Your task to perform on an android device: toggle improve location accuracy Image 0: 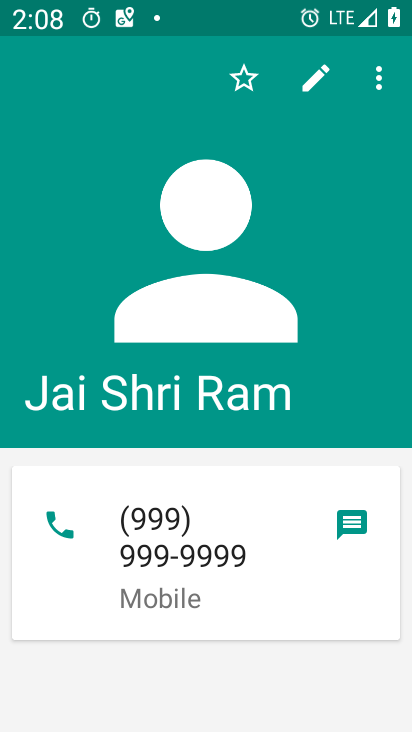
Step 0: press home button
Your task to perform on an android device: toggle improve location accuracy Image 1: 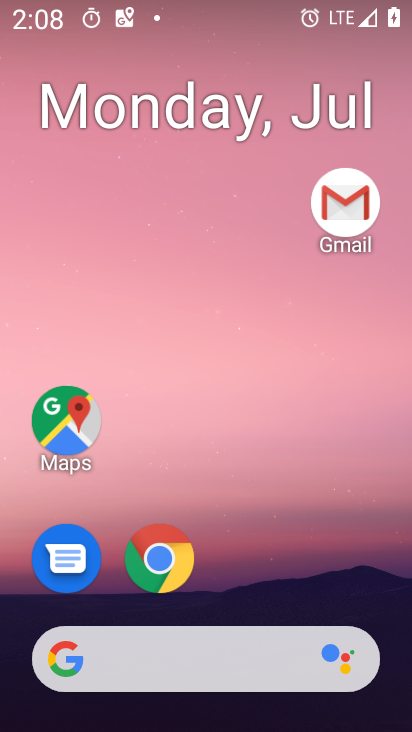
Step 1: drag from (358, 565) to (374, 164)
Your task to perform on an android device: toggle improve location accuracy Image 2: 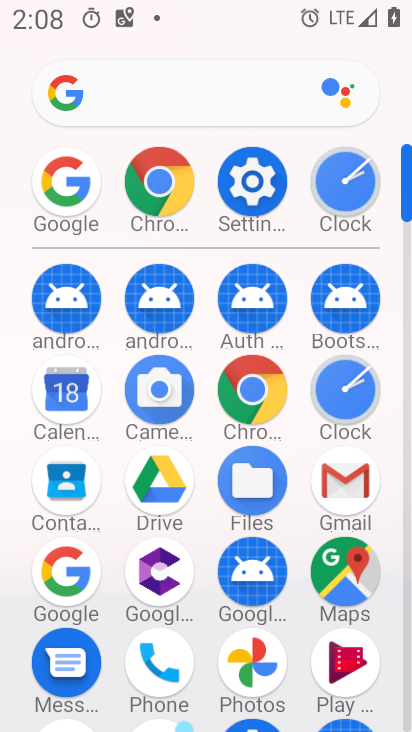
Step 2: click (268, 191)
Your task to perform on an android device: toggle improve location accuracy Image 3: 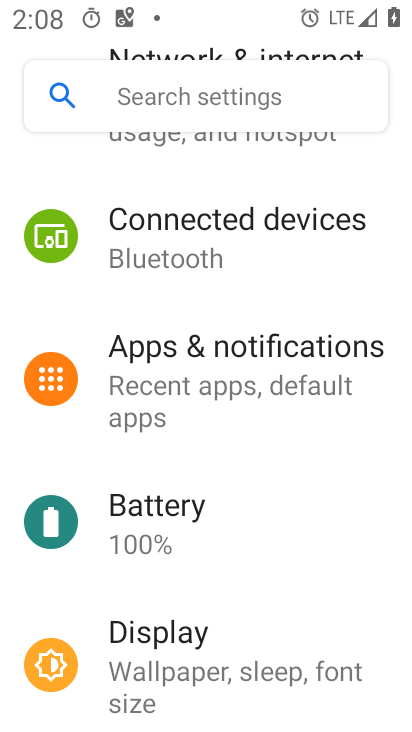
Step 3: drag from (339, 539) to (339, 445)
Your task to perform on an android device: toggle improve location accuracy Image 4: 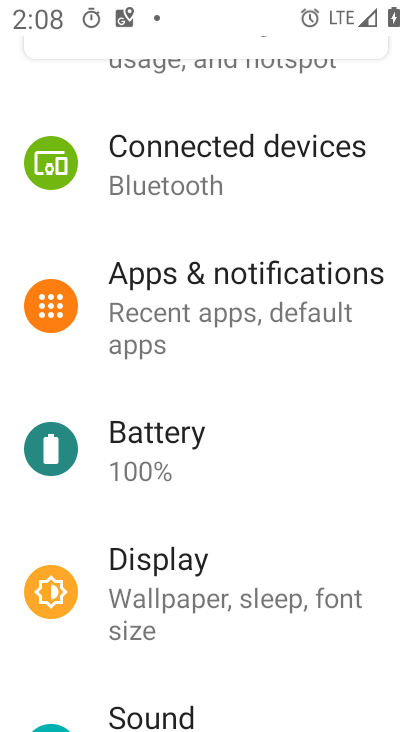
Step 4: drag from (346, 556) to (344, 449)
Your task to perform on an android device: toggle improve location accuracy Image 5: 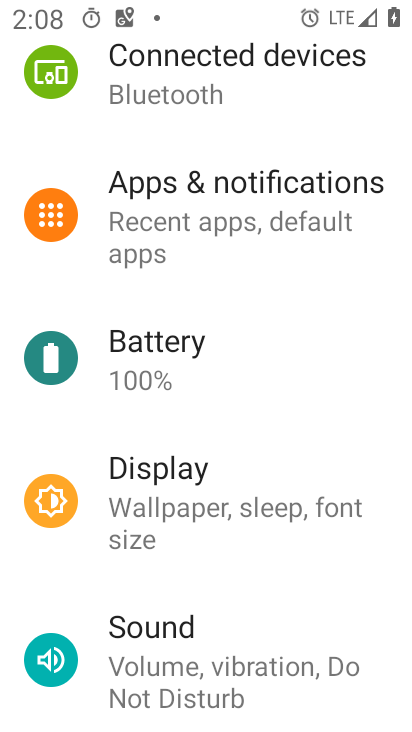
Step 5: drag from (354, 596) to (351, 471)
Your task to perform on an android device: toggle improve location accuracy Image 6: 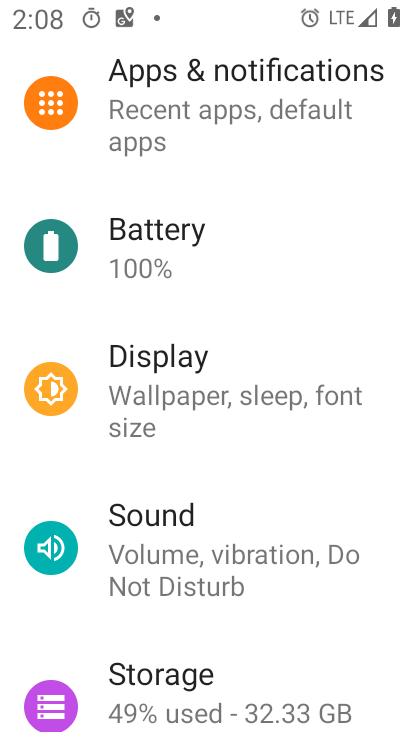
Step 6: drag from (349, 596) to (342, 492)
Your task to perform on an android device: toggle improve location accuracy Image 7: 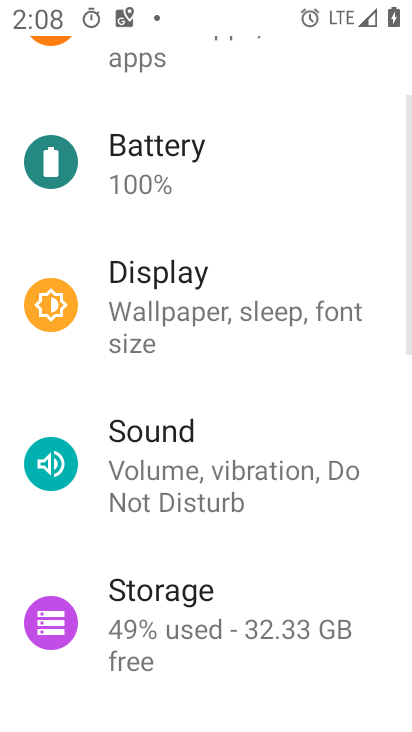
Step 7: drag from (337, 558) to (334, 453)
Your task to perform on an android device: toggle improve location accuracy Image 8: 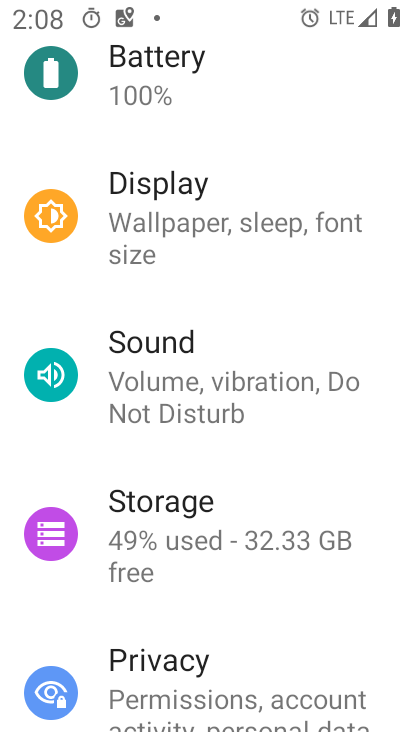
Step 8: drag from (323, 585) to (323, 476)
Your task to perform on an android device: toggle improve location accuracy Image 9: 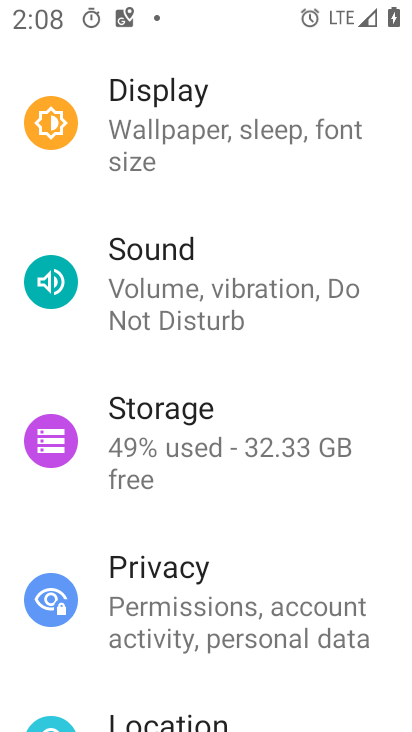
Step 9: drag from (332, 579) to (332, 463)
Your task to perform on an android device: toggle improve location accuracy Image 10: 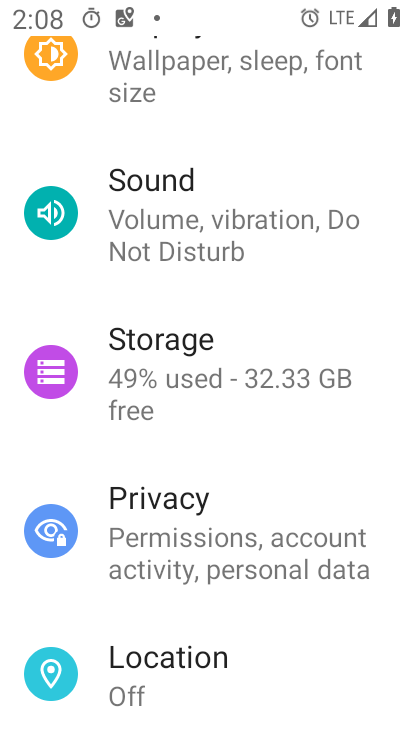
Step 10: drag from (333, 597) to (331, 484)
Your task to perform on an android device: toggle improve location accuracy Image 11: 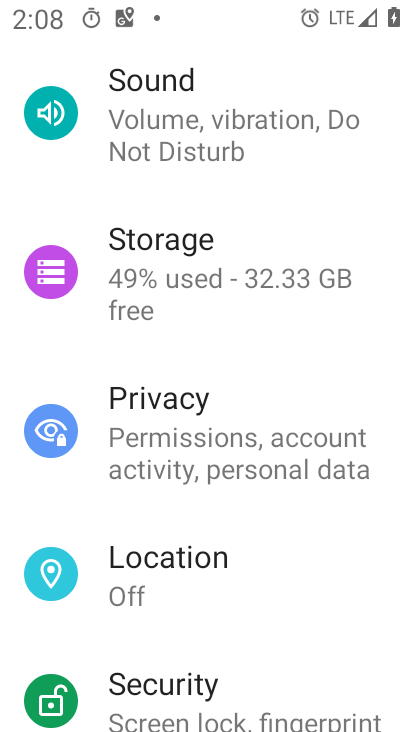
Step 11: click (318, 550)
Your task to perform on an android device: toggle improve location accuracy Image 12: 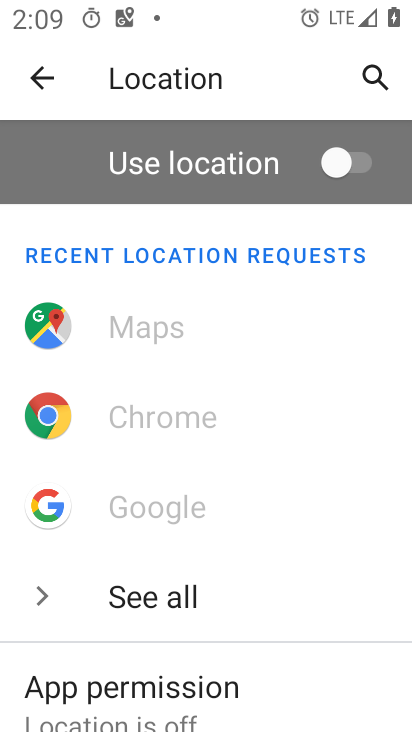
Step 12: drag from (321, 644) to (326, 482)
Your task to perform on an android device: toggle improve location accuracy Image 13: 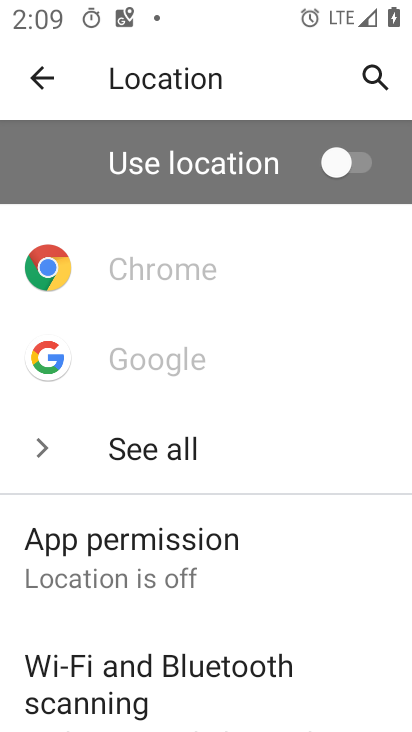
Step 13: drag from (336, 610) to (335, 535)
Your task to perform on an android device: toggle improve location accuracy Image 14: 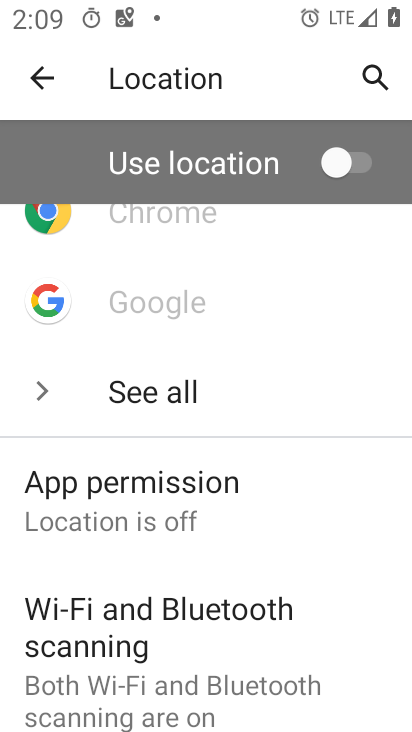
Step 14: drag from (338, 620) to (340, 522)
Your task to perform on an android device: toggle improve location accuracy Image 15: 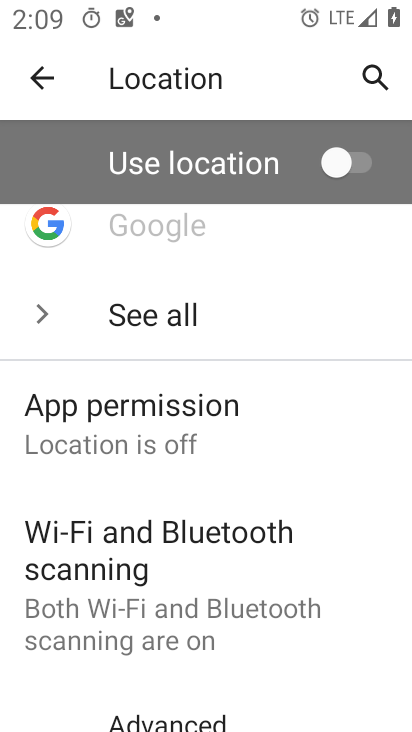
Step 15: drag from (345, 648) to (349, 519)
Your task to perform on an android device: toggle improve location accuracy Image 16: 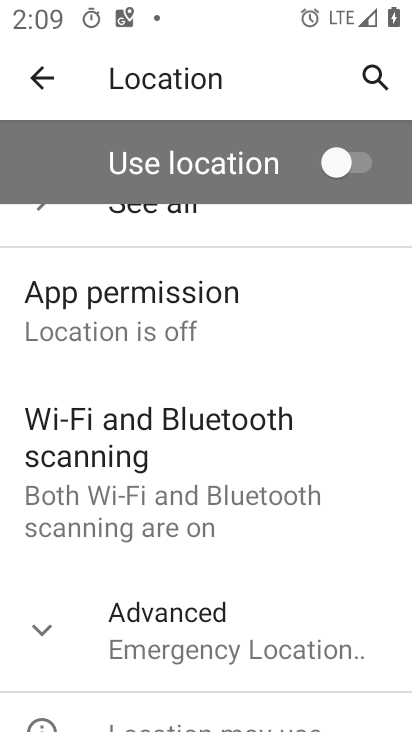
Step 16: click (326, 627)
Your task to perform on an android device: toggle improve location accuracy Image 17: 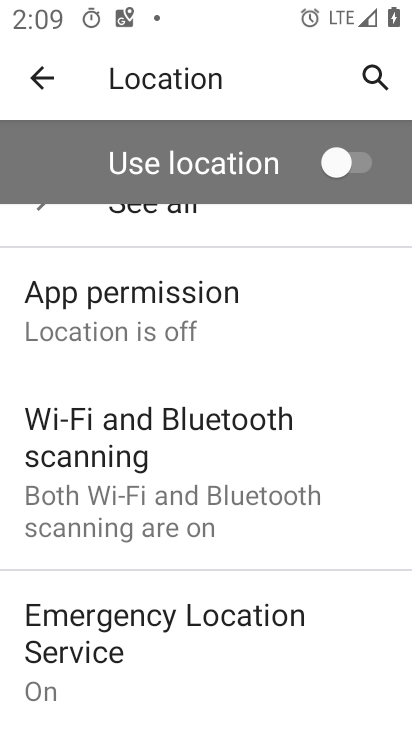
Step 17: drag from (326, 641) to (323, 542)
Your task to perform on an android device: toggle improve location accuracy Image 18: 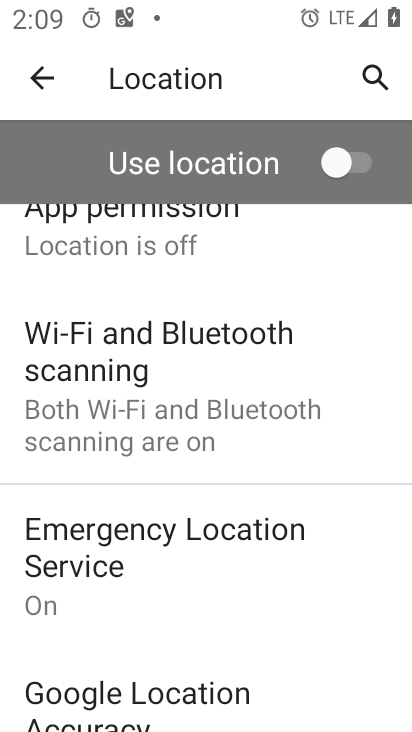
Step 18: drag from (335, 638) to (332, 534)
Your task to perform on an android device: toggle improve location accuracy Image 19: 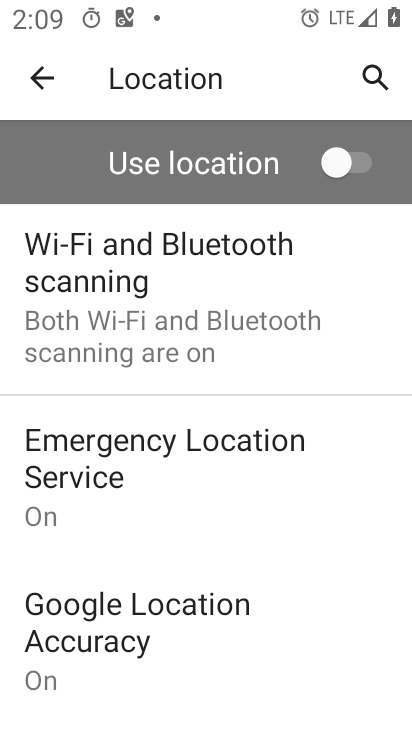
Step 19: drag from (316, 620) to (317, 527)
Your task to perform on an android device: toggle improve location accuracy Image 20: 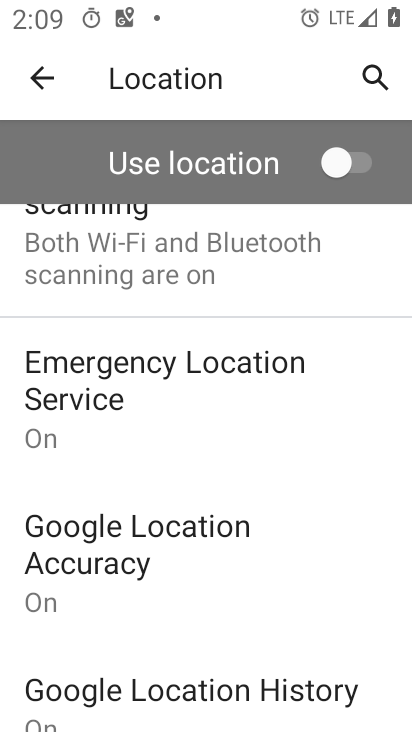
Step 20: click (211, 536)
Your task to perform on an android device: toggle improve location accuracy Image 21: 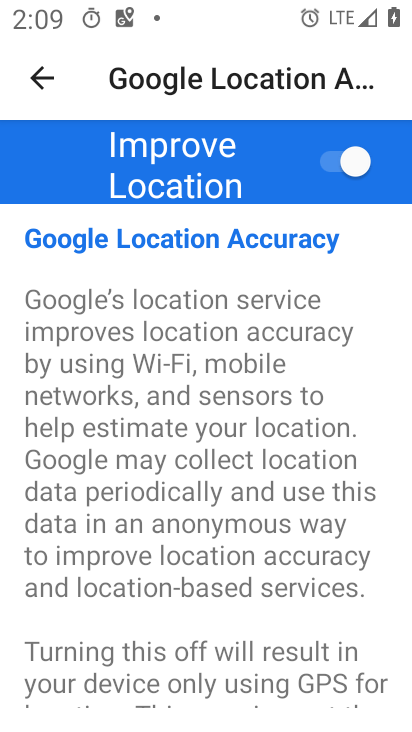
Step 21: click (340, 168)
Your task to perform on an android device: toggle improve location accuracy Image 22: 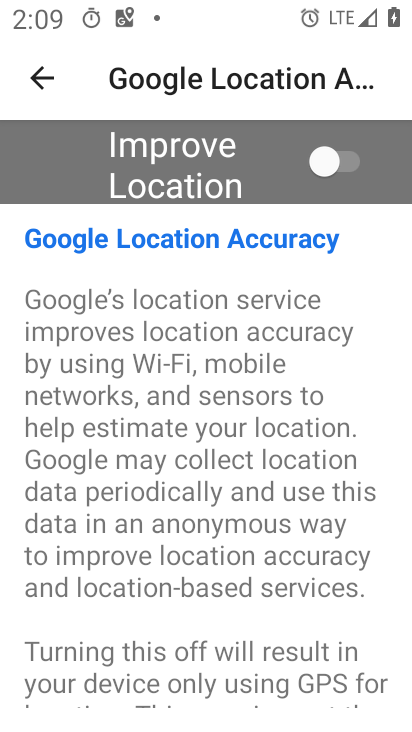
Step 22: task complete